Your task to perform on an android device: empty trash in google photos Image 0: 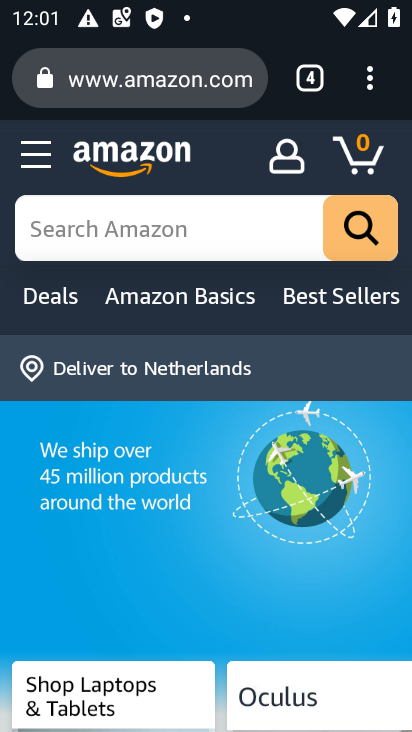
Step 0: press home button
Your task to perform on an android device: empty trash in google photos Image 1: 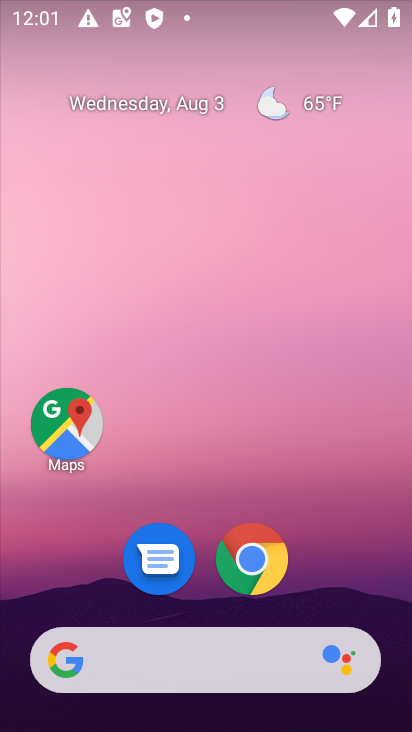
Step 1: drag from (208, 600) to (208, 105)
Your task to perform on an android device: empty trash in google photos Image 2: 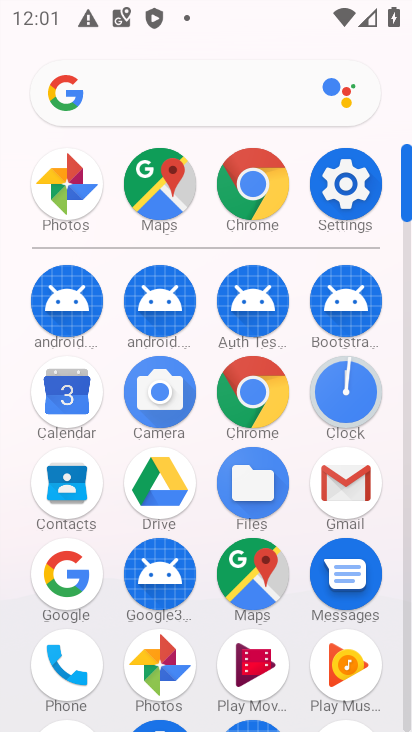
Step 2: click (167, 662)
Your task to perform on an android device: empty trash in google photos Image 3: 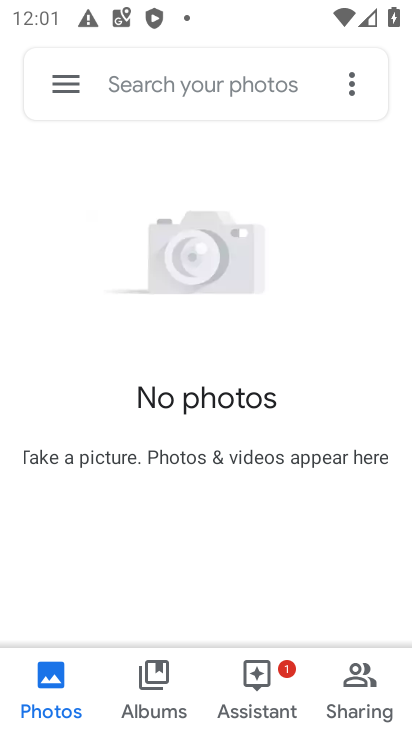
Step 3: click (65, 84)
Your task to perform on an android device: empty trash in google photos Image 4: 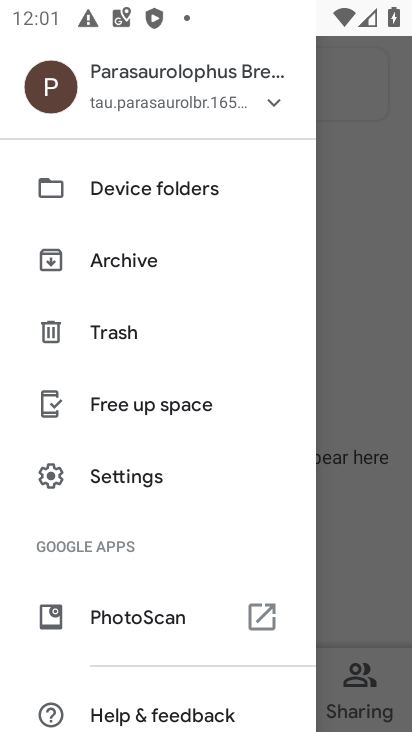
Step 4: click (120, 330)
Your task to perform on an android device: empty trash in google photos Image 5: 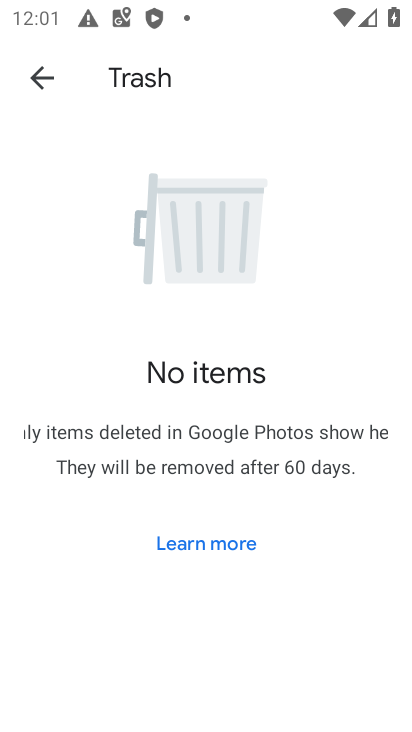
Step 5: task complete